Your task to perform on an android device: toggle priority inbox in the gmail app Image 0: 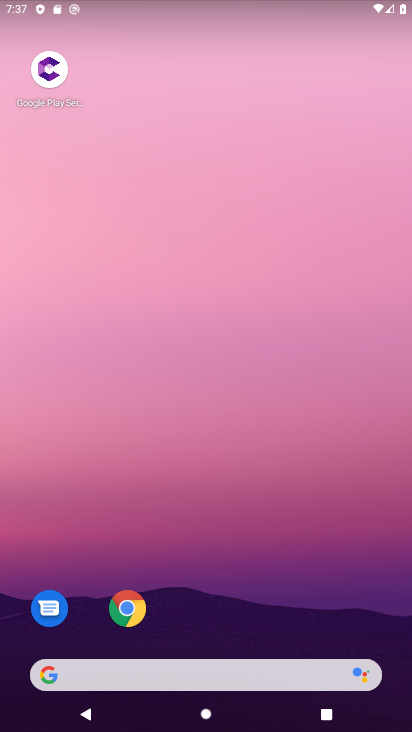
Step 0: drag from (56, 709) to (163, 67)
Your task to perform on an android device: toggle priority inbox in the gmail app Image 1: 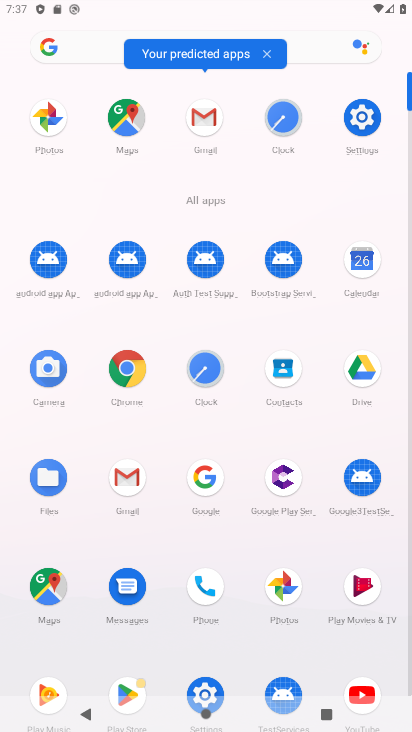
Step 1: click (122, 473)
Your task to perform on an android device: toggle priority inbox in the gmail app Image 2: 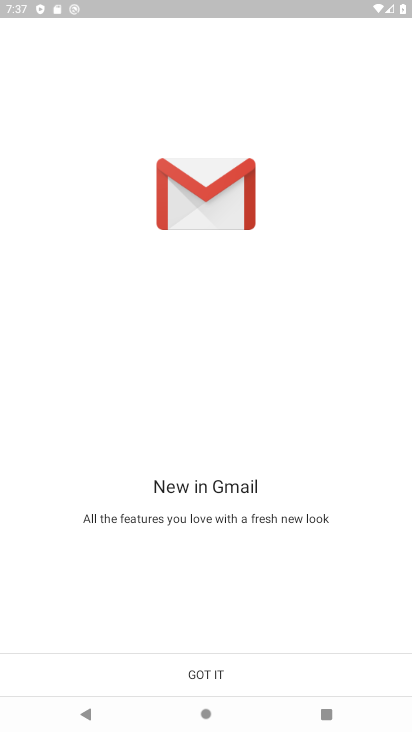
Step 2: click (190, 668)
Your task to perform on an android device: toggle priority inbox in the gmail app Image 3: 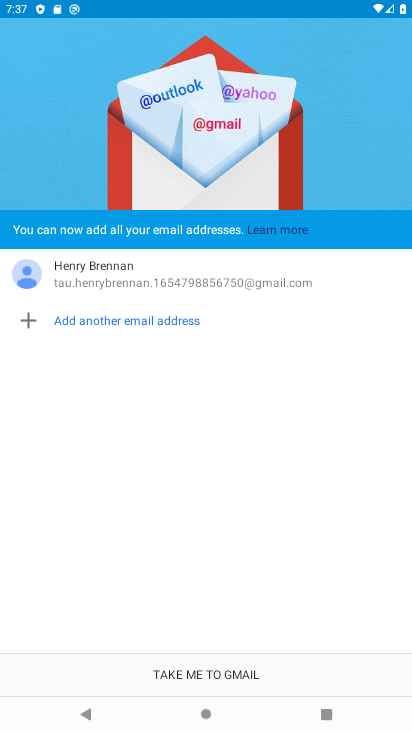
Step 3: click (226, 667)
Your task to perform on an android device: toggle priority inbox in the gmail app Image 4: 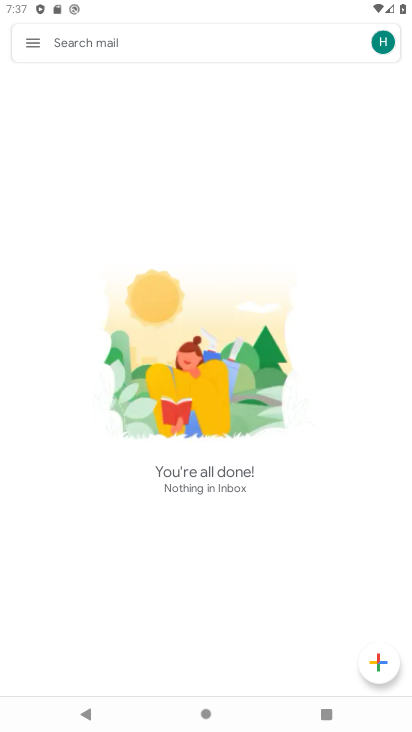
Step 4: click (42, 42)
Your task to perform on an android device: toggle priority inbox in the gmail app Image 5: 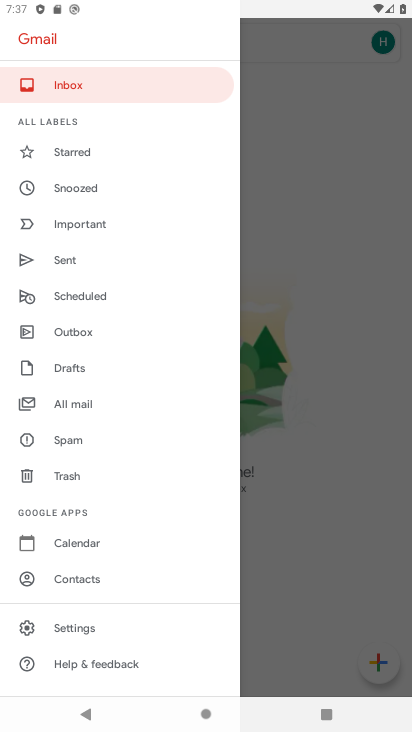
Step 5: click (59, 623)
Your task to perform on an android device: toggle priority inbox in the gmail app Image 6: 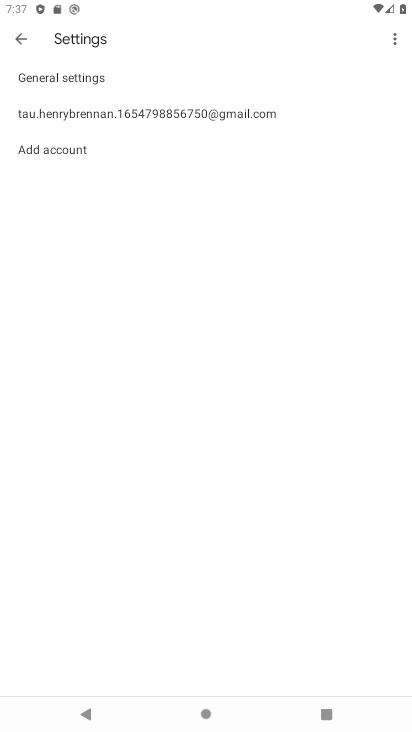
Step 6: click (89, 110)
Your task to perform on an android device: toggle priority inbox in the gmail app Image 7: 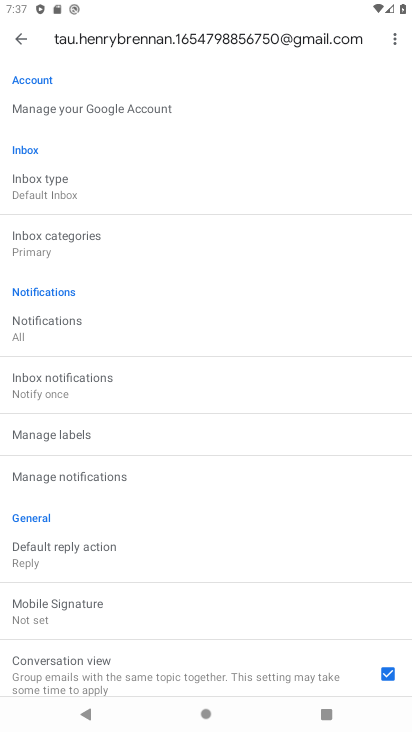
Step 7: click (57, 183)
Your task to perform on an android device: toggle priority inbox in the gmail app Image 8: 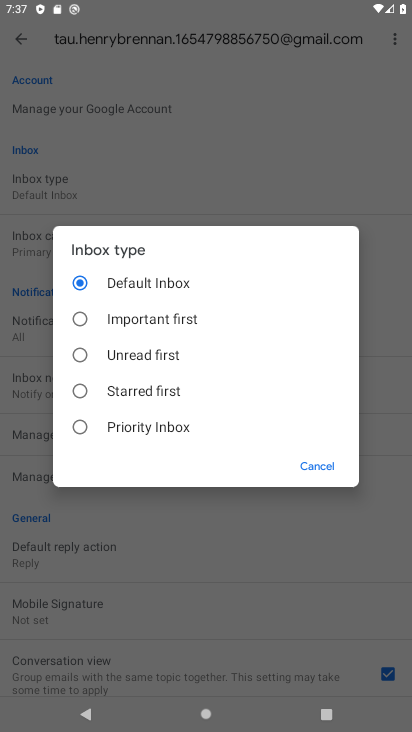
Step 8: click (75, 425)
Your task to perform on an android device: toggle priority inbox in the gmail app Image 9: 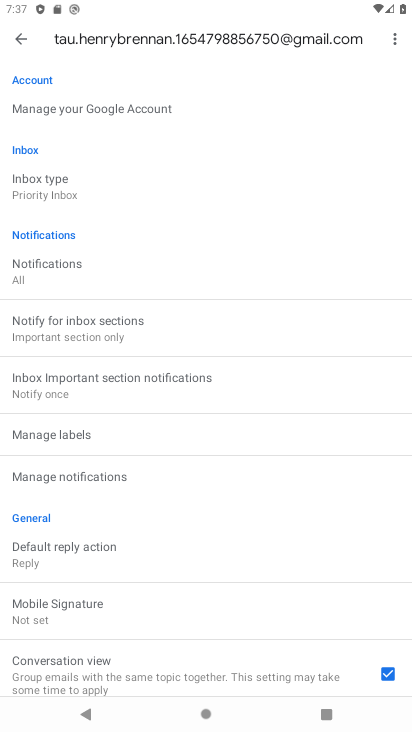
Step 9: task complete